Your task to perform on an android device: What's the latest video from GameSpot News? Image 0: 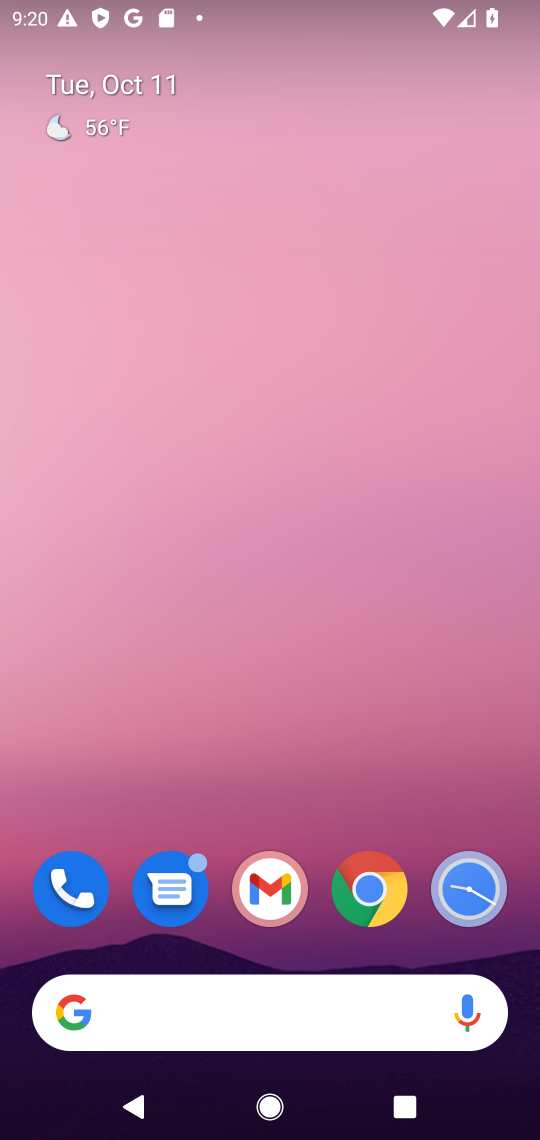
Step 0: drag from (256, 791) to (372, 111)
Your task to perform on an android device: What's the latest video from GameSpot News? Image 1: 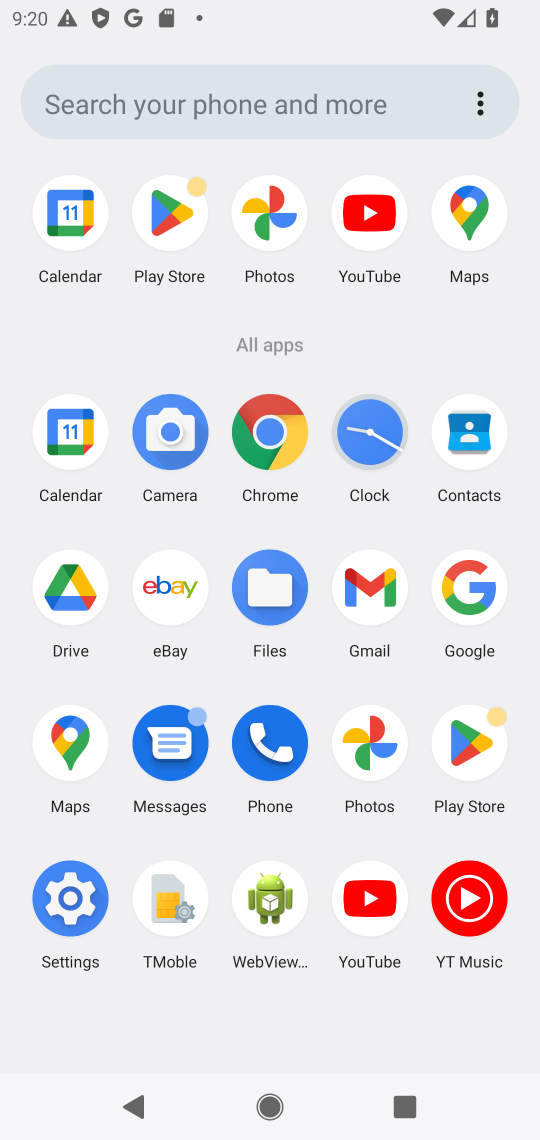
Step 1: click (350, 208)
Your task to perform on an android device: What's the latest video from GameSpot News? Image 2: 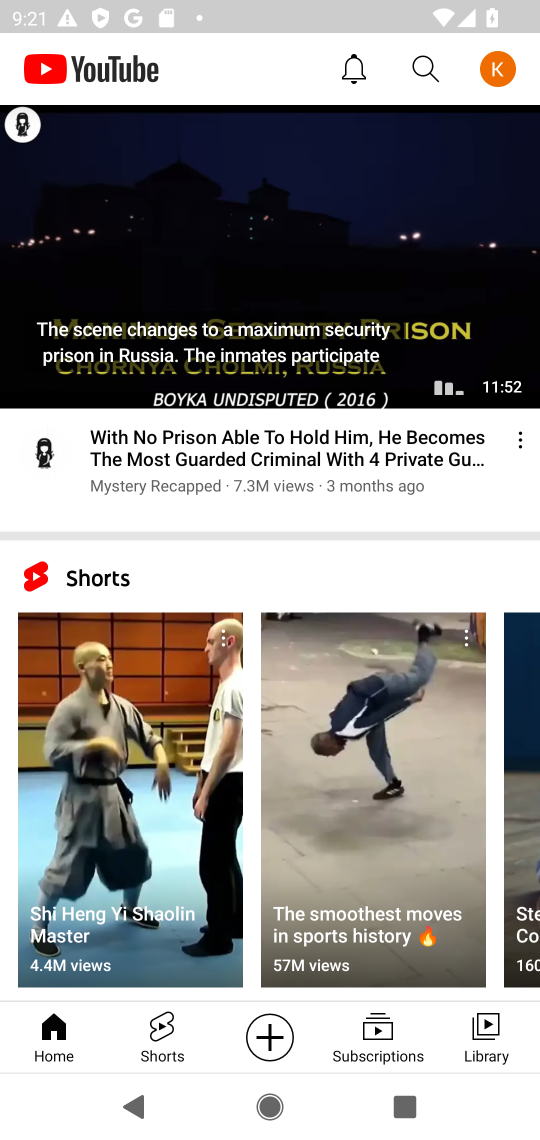
Step 2: click (419, 66)
Your task to perform on an android device: What's the latest video from GameSpot News? Image 3: 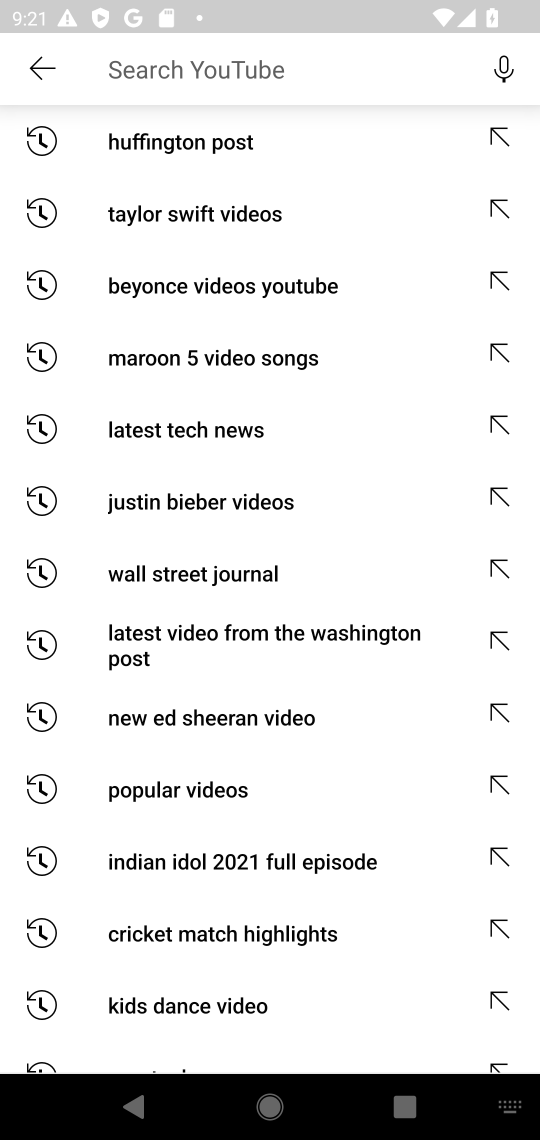
Step 3: click (196, 67)
Your task to perform on an android device: What's the latest video from GameSpot News? Image 4: 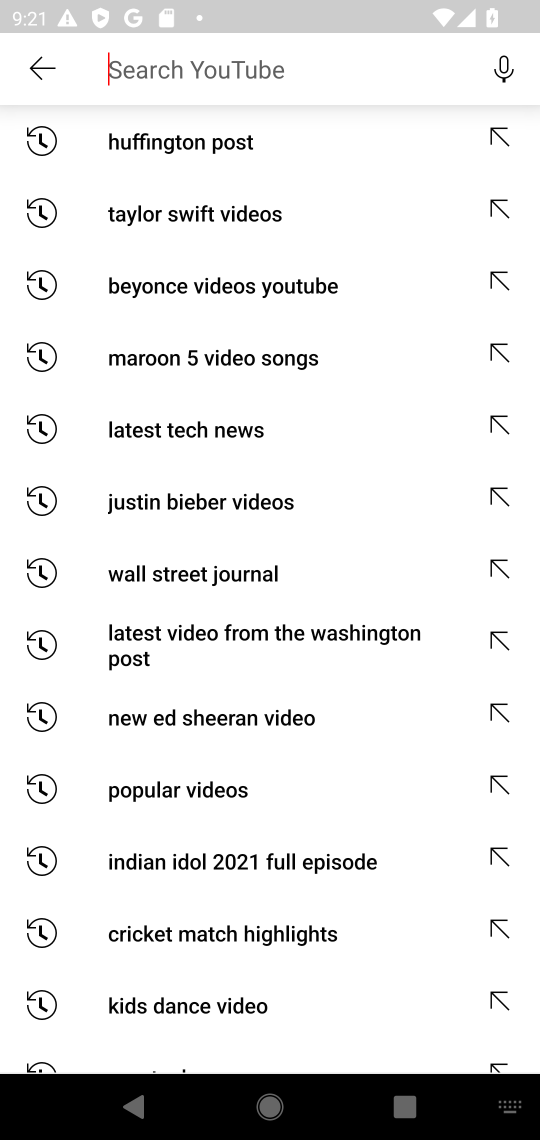
Step 4: click (199, 82)
Your task to perform on an android device: What's the latest video from GameSpot News? Image 5: 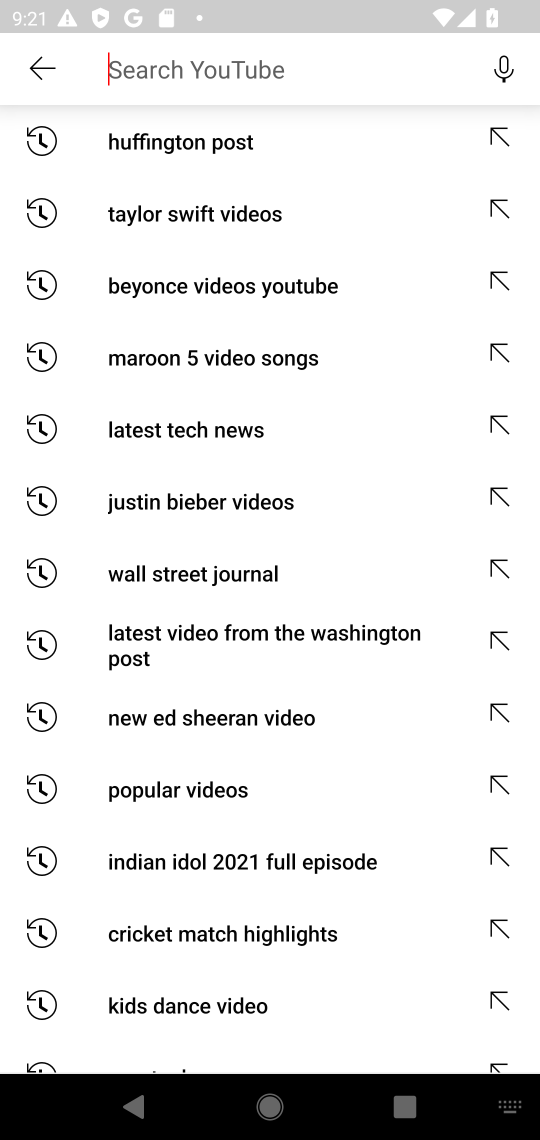
Step 5: type "latest video from GameSpot News"
Your task to perform on an android device: What's the latest video from GameSpot News? Image 6: 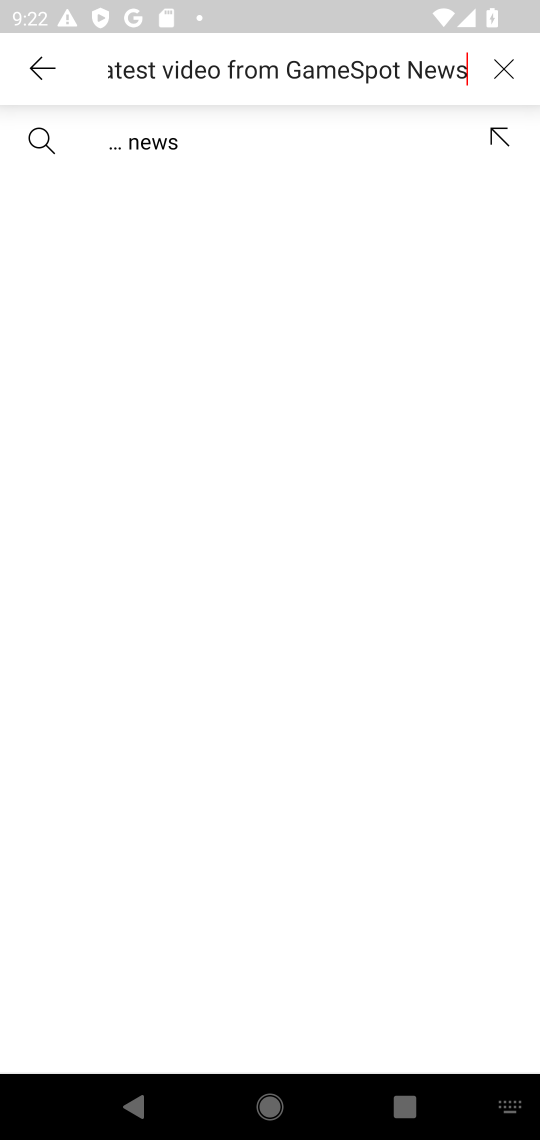
Step 6: click (190, 160)
Your task to perform on an android device: What's the latest video from GameSpot News? Image 7: 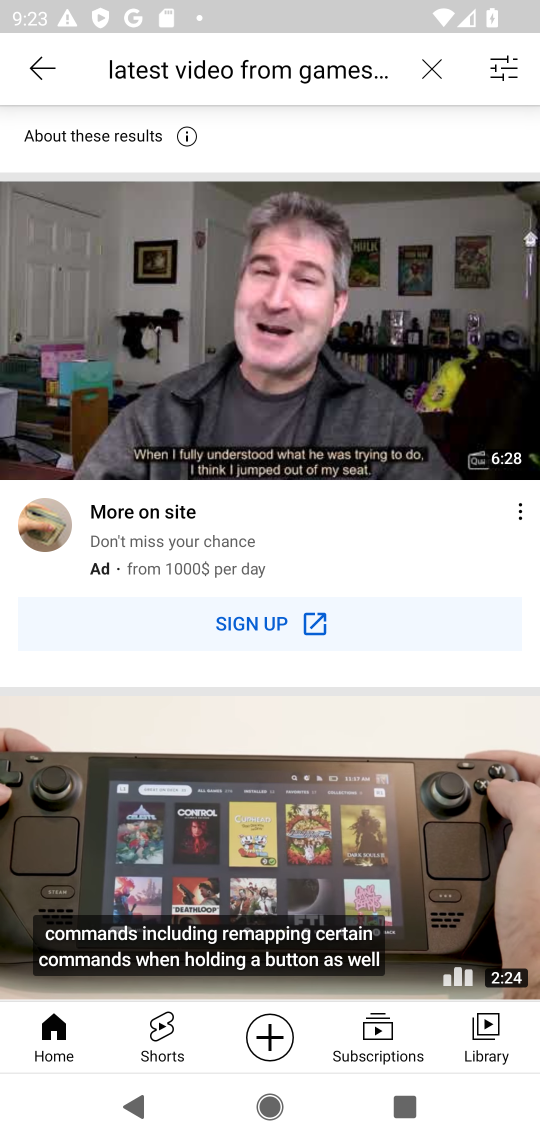
Step 7: drag from (181, 896) to (301, 353)
Your task to perform on an android device: What's the latest video from GameSpot News? Image 8: 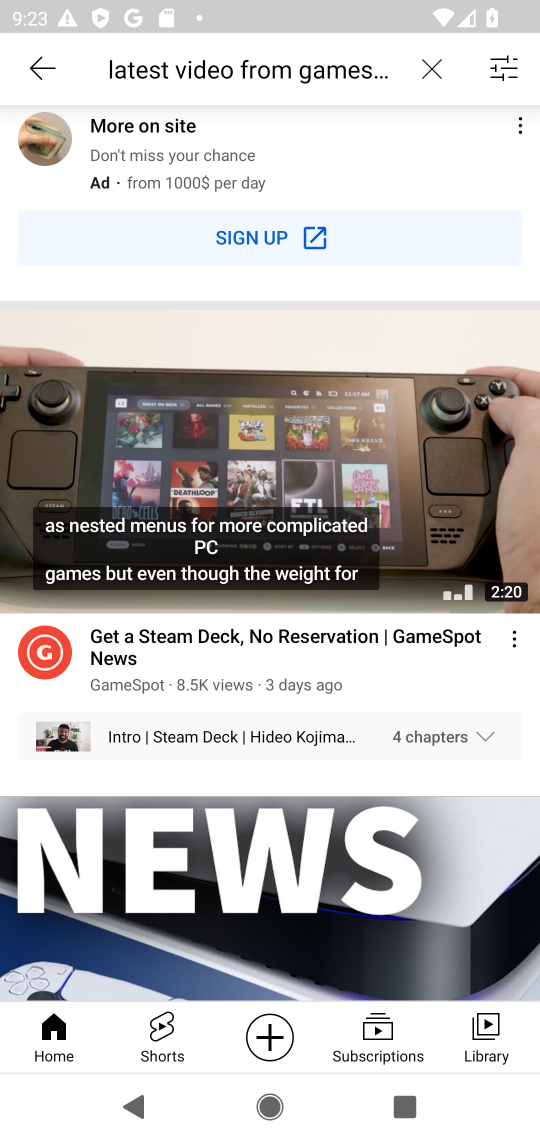
Step 8: click (249, 465)
Your task to perform on an android device: What's the latest video from GameSpot News? Image 9: 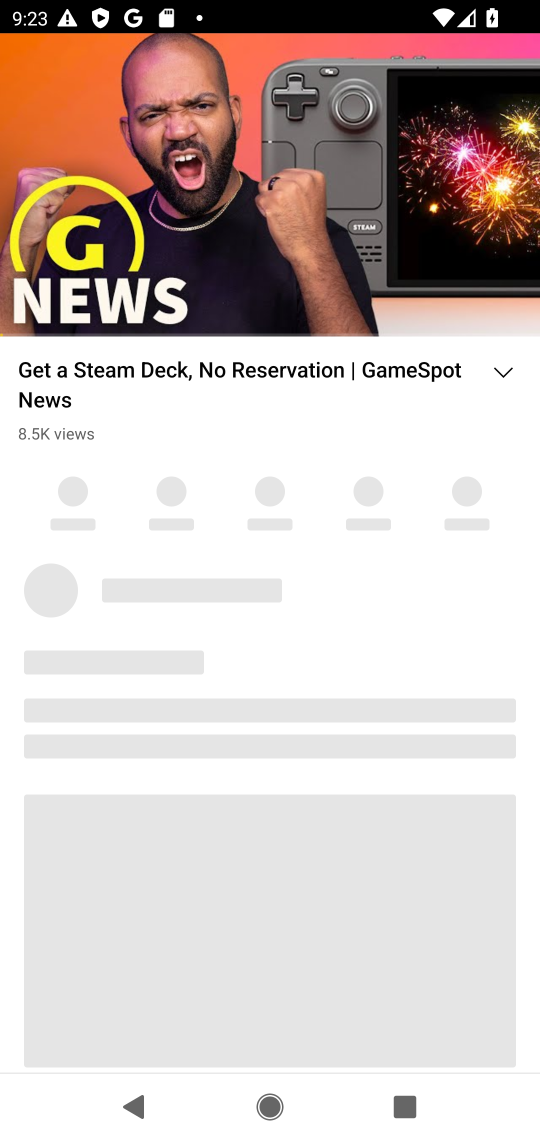
Step 9: task complete